Your task to perform on an android device: Open Google Chrome Image 0: 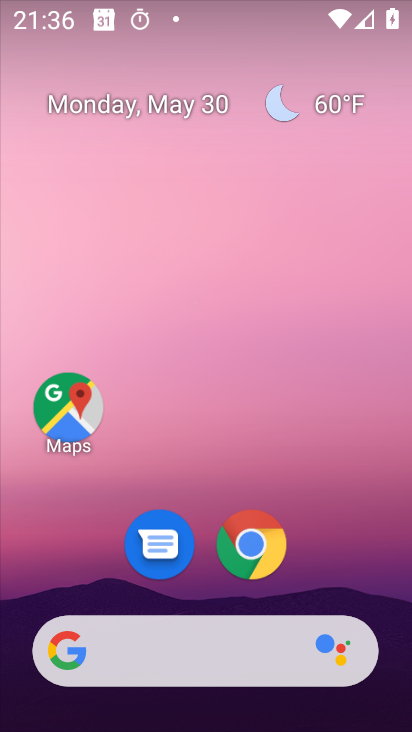
Step 0: click (250, 543)
Your task to perform on an android device: Open Google Chrome Image 1: 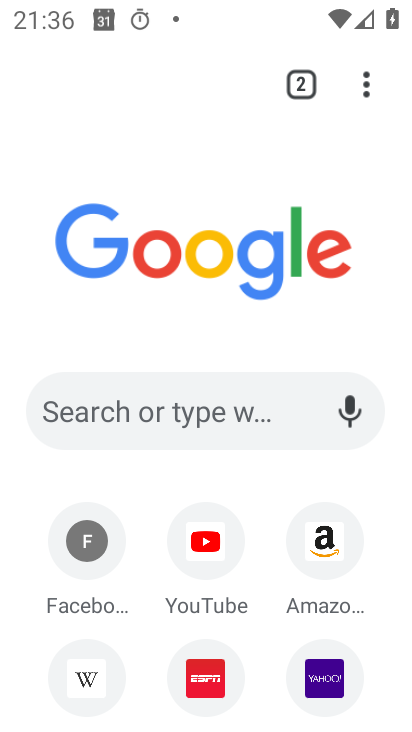
Step 1: task complete